Your task to perform on an android device: Open battery settings Image 0: 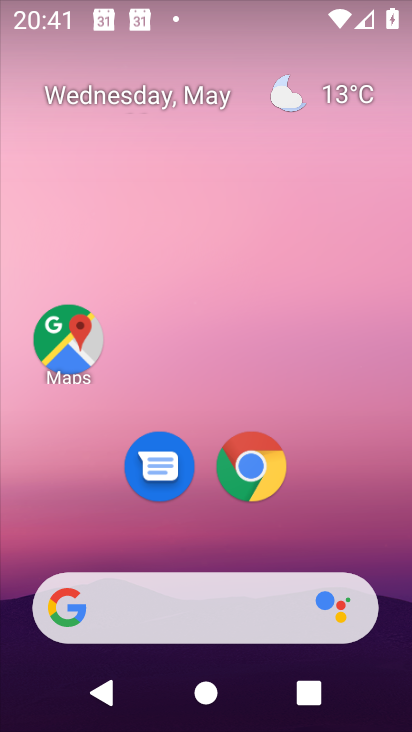
Step 0: press home button
Your task to perform on an android device: Open battery settings Image 1: 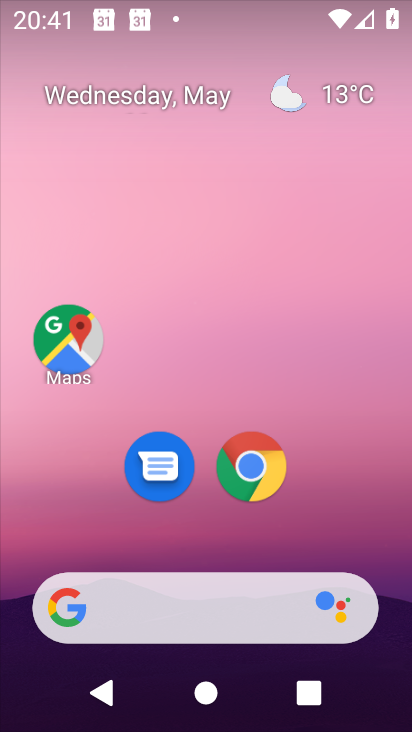
Step 1: drag from (204, 544) to (219, 108)
Your task to perform on an android device: Open battery settings Image 2: 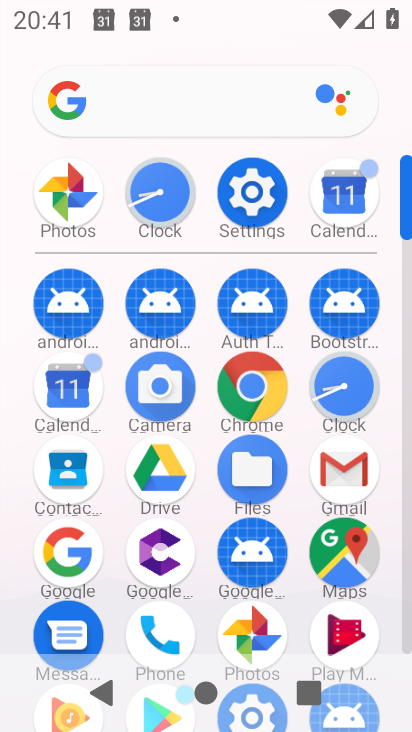
Step 2: click (248, 182)
Your task to perform on an android device: Open battery settings Image 3: 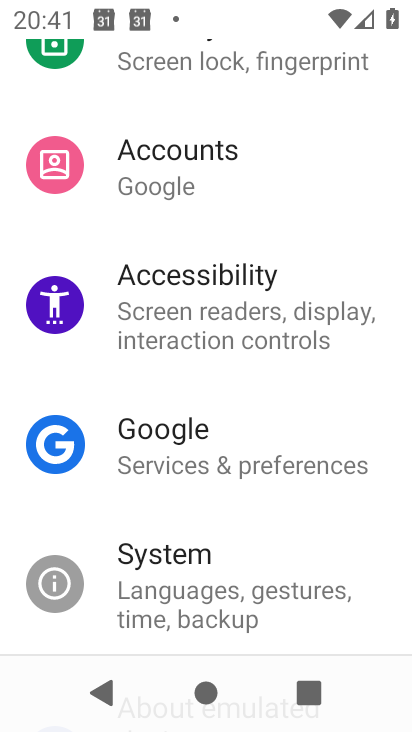
Step 3: drag from (200, 121) to (203, 643)
Your task to perform on an android device: Open battery settings Image 4: 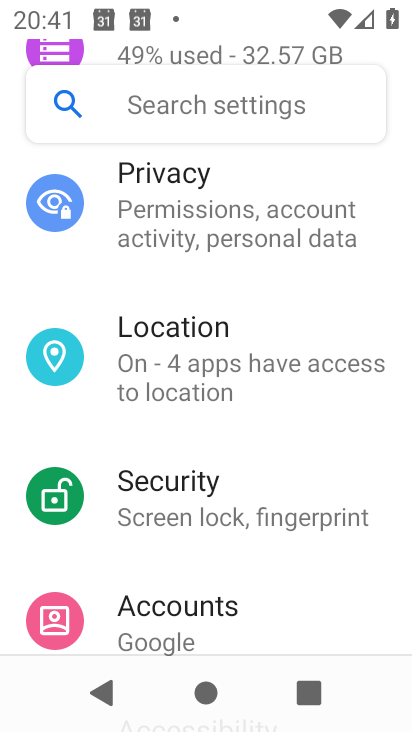
Step 4: drag from (197, 196) to (201, 672)
Your task to perform on an android device: Open battery settings Image 5: 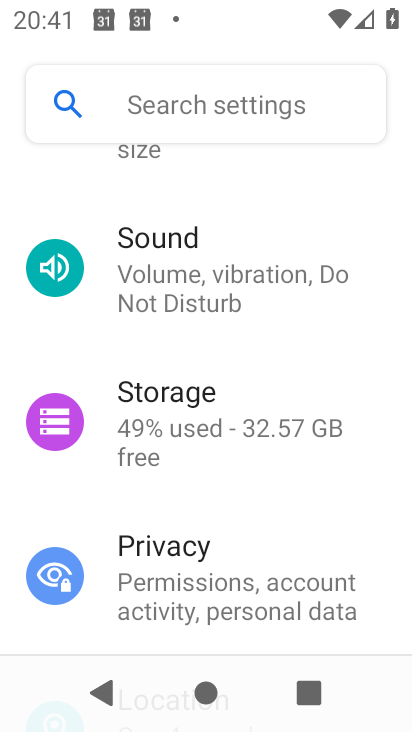
Step 5: drag from (202, 178) to (209, 648)
Your task to perform on an android device: Open battery settings Image 6: 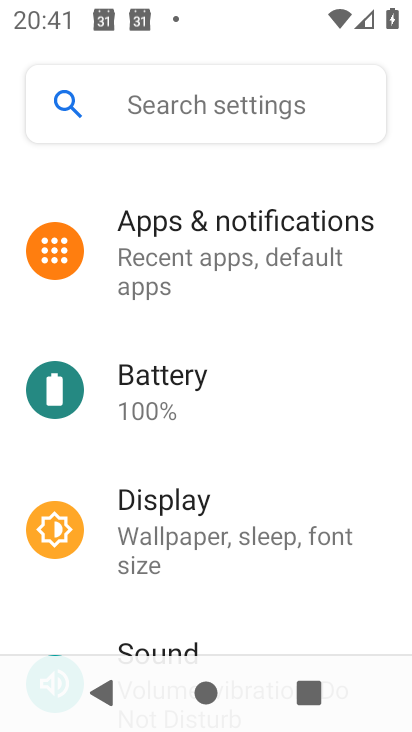
Step 6: click (185, 402)
Your task to perform on an android device: Open battery settings Image 7: 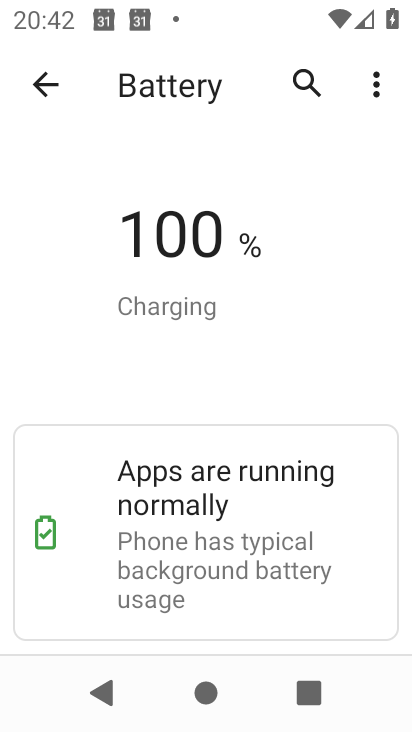
Step 7: drag from (226, 613) to (236, 141)
Your task to perform on an android device: Open battery settings Image 8: 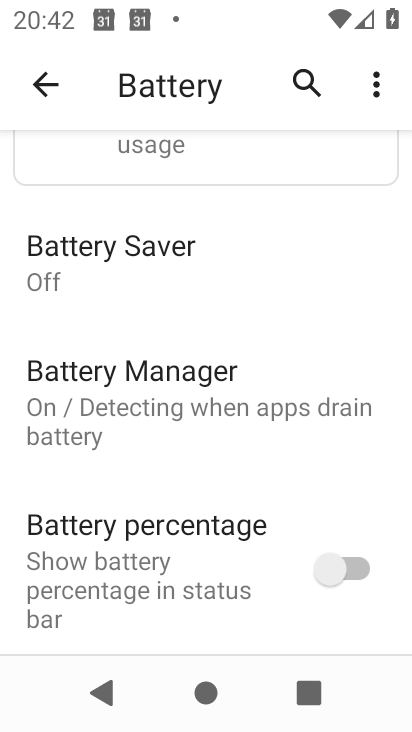
Step 8: click (381, 78)
Your task to perform on an android device: Open battery settings Image 9: 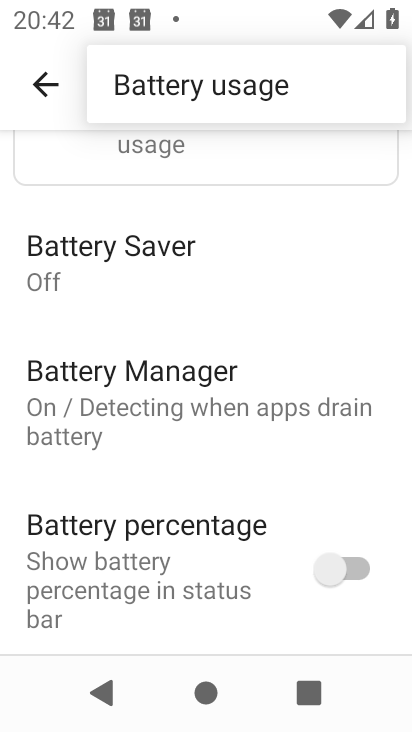
Step 9: click (201, 472)
Your task to perform on an android device: Open battery settings Image 10: 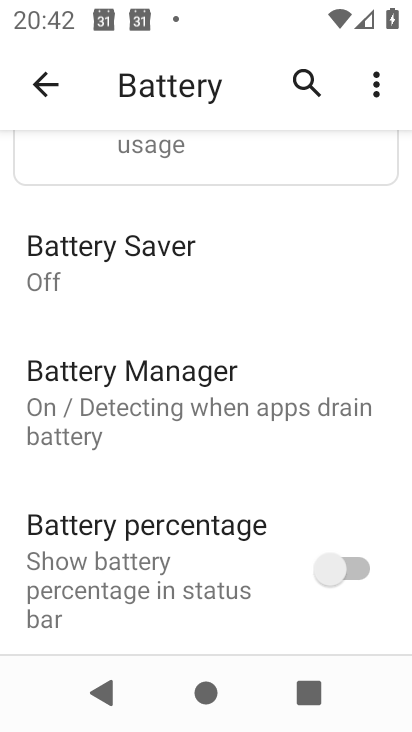
Step 10: task complete